Your task to perform on an android device: open app "Spotify" (install if not already installed) Image 0: 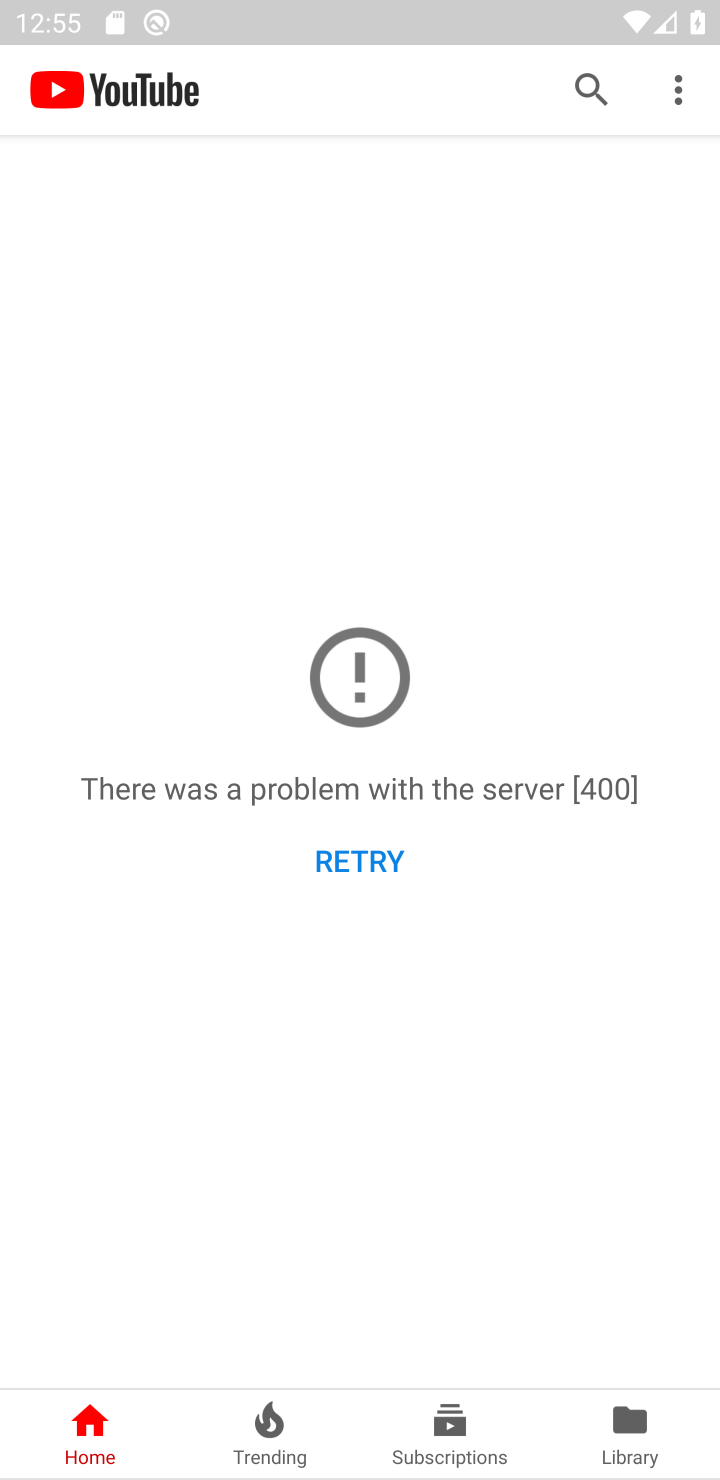
Step 0: press home button
Your task to perform on an android device: open app "Spotify" (install if not already installed) Image 1: 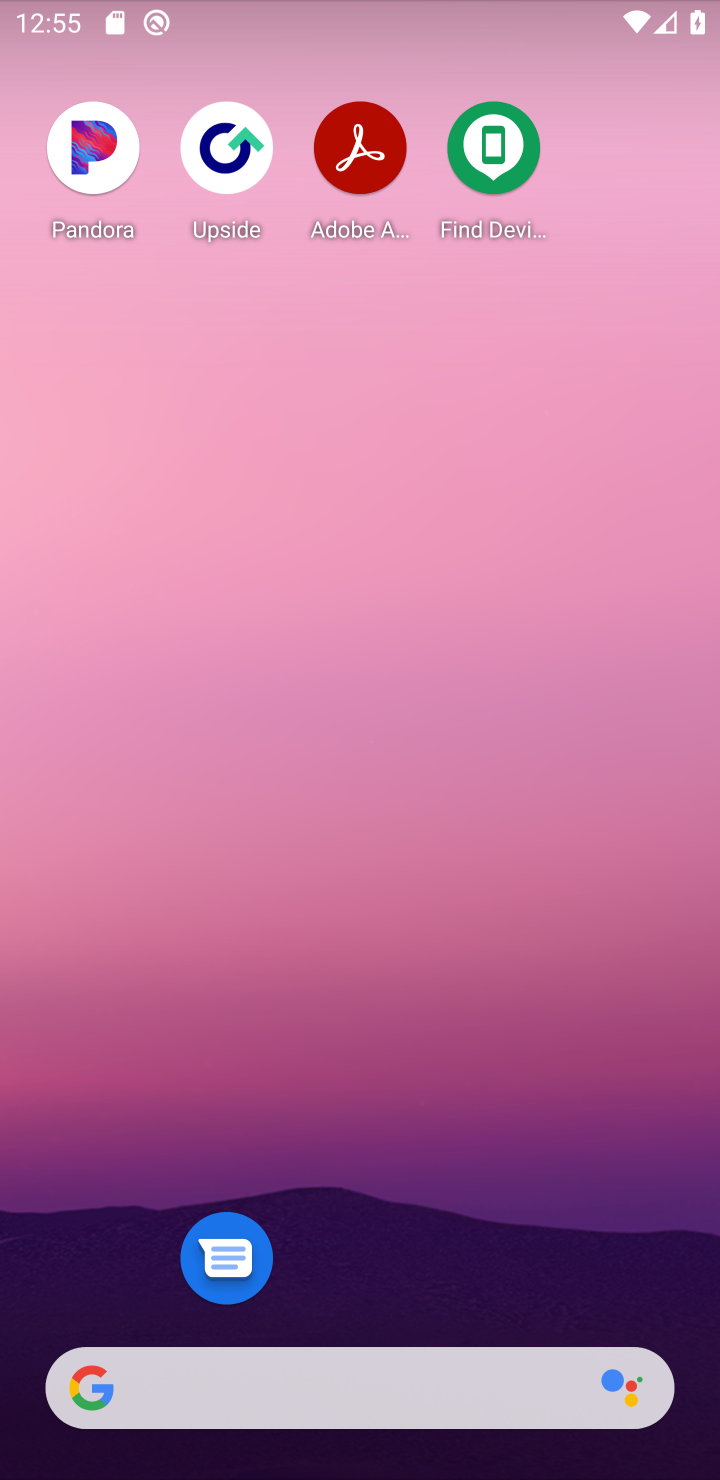
Step 1: drag from (326, 1252) to (387, 331)
Your task to perform on an android device: open app "Spotify" (install if not already installed) Image 2: 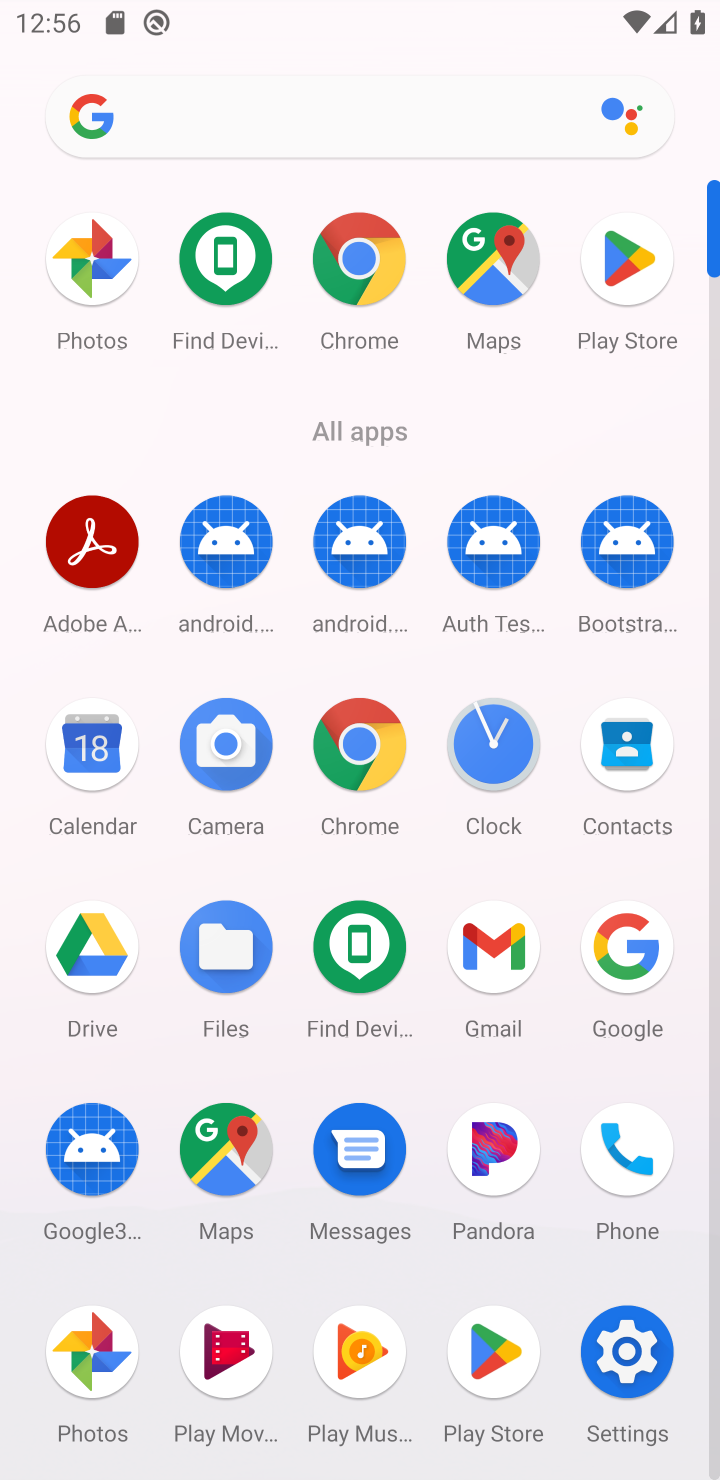
Step 2: click (637, 253)
Your task to perform on an android device: open app "Spotify" (install if not already installed) Image 3: 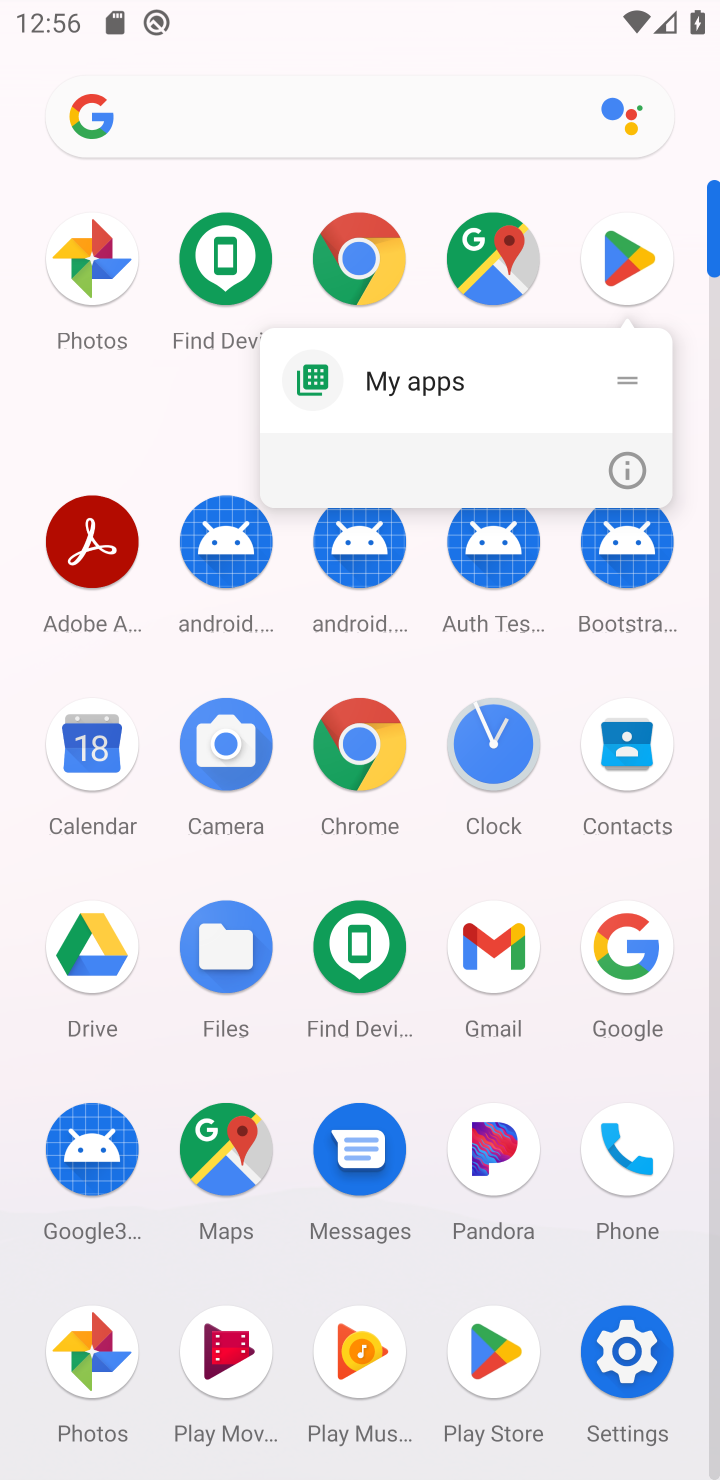
Step 3: click (637, 253)
Your task to perform on an android device: open app "Spotify" (install if not already installed) Image 4: 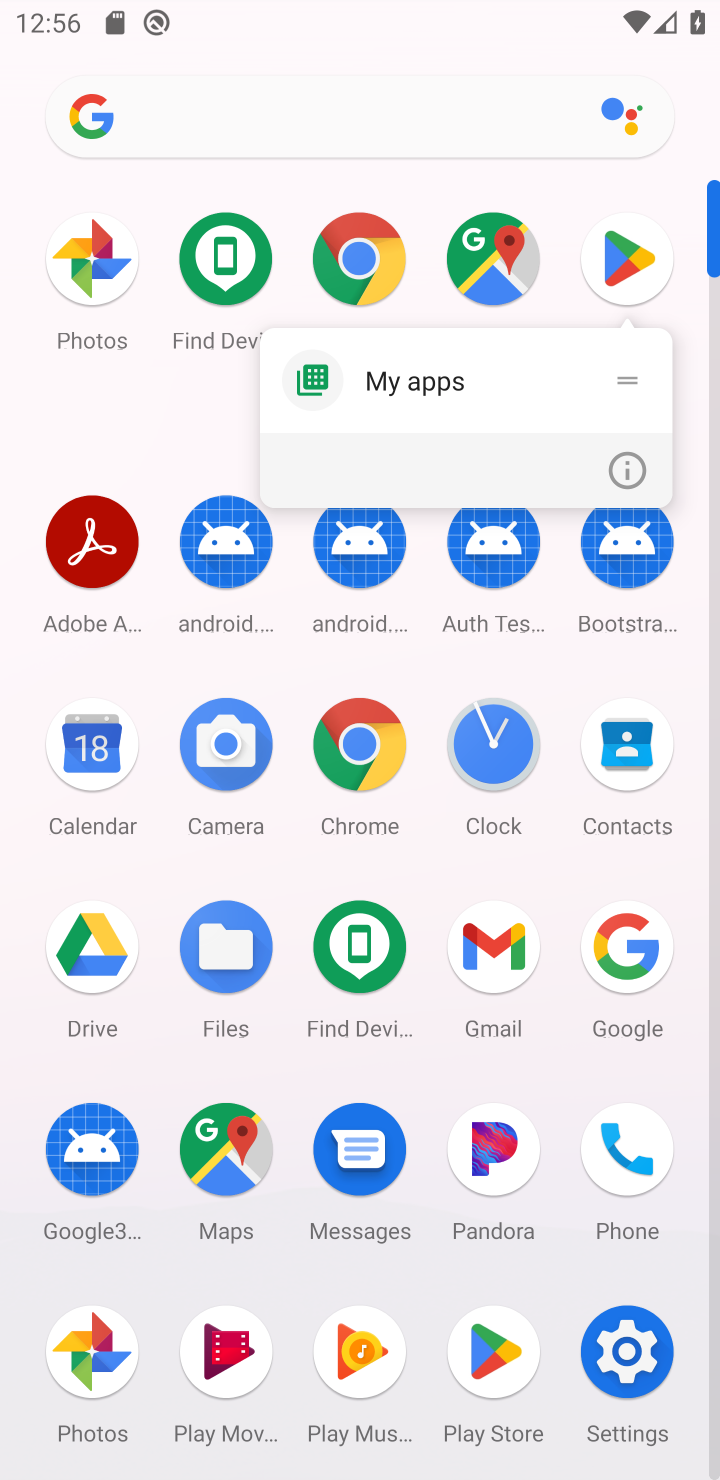
Step 4: click (629, 272)
Your task to perform on an android device: open app "Spotify" (install if not already installed) Image 5: 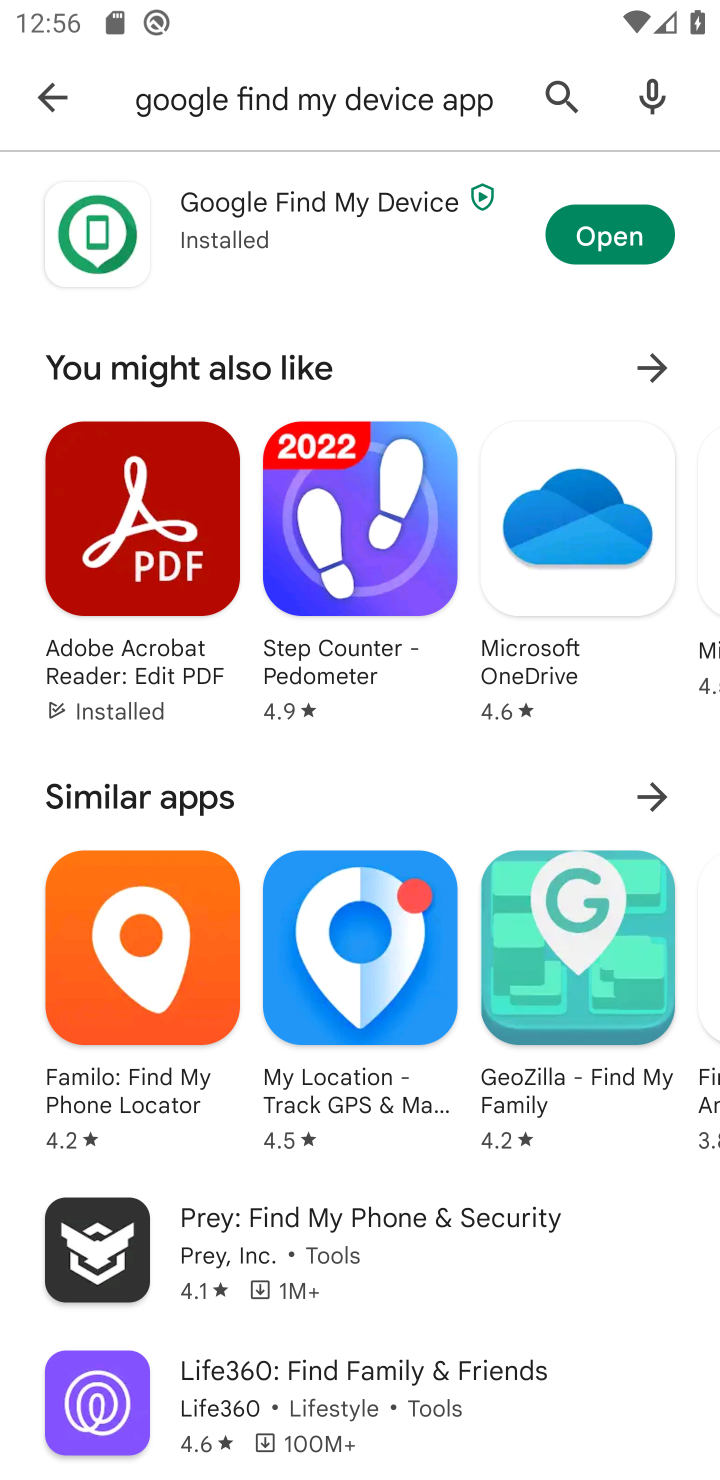
Step 5: click (59, 107)
Your task to perform on an android device: open app "Spotify" (install if not already installed) Image 6: 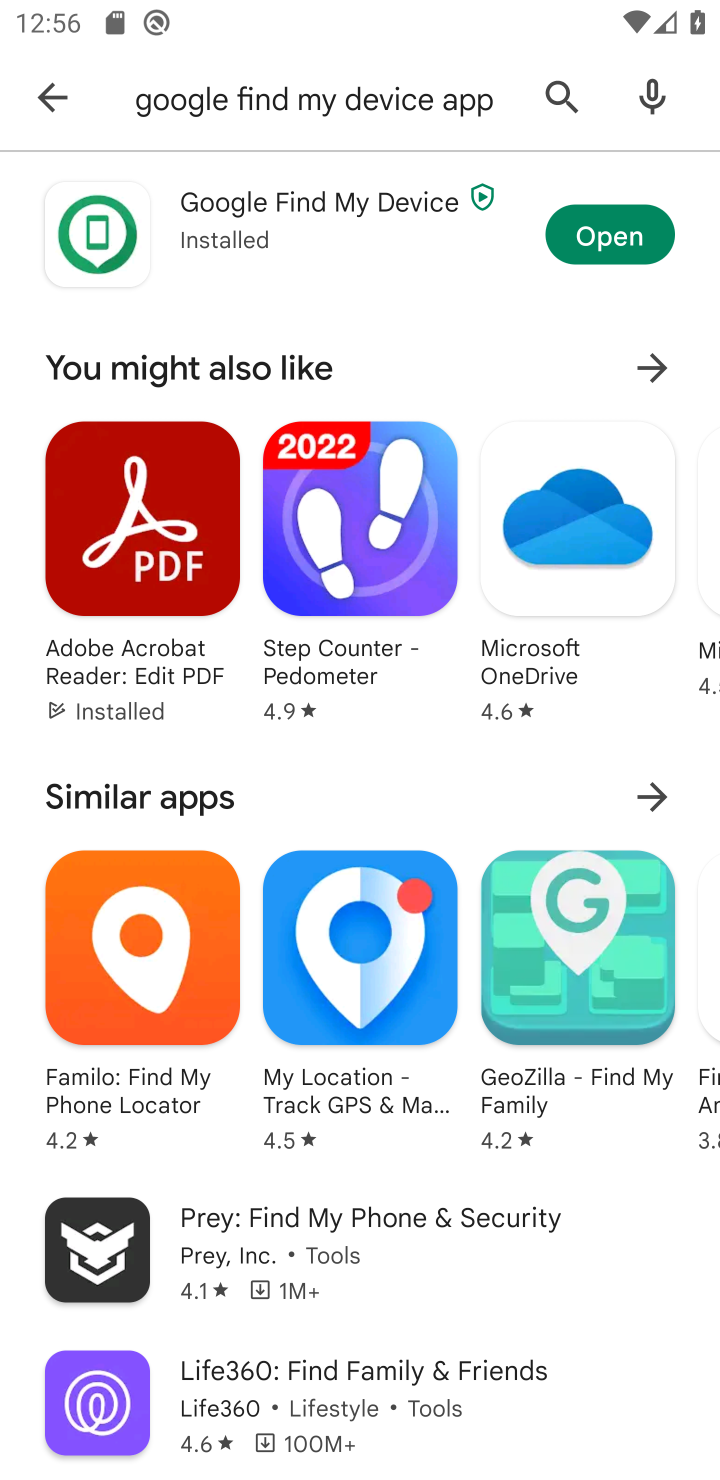
Step 6: click (59, 93)
Your task to perform on an android device: open app "Spotify" (install if not already installed) Image 7: 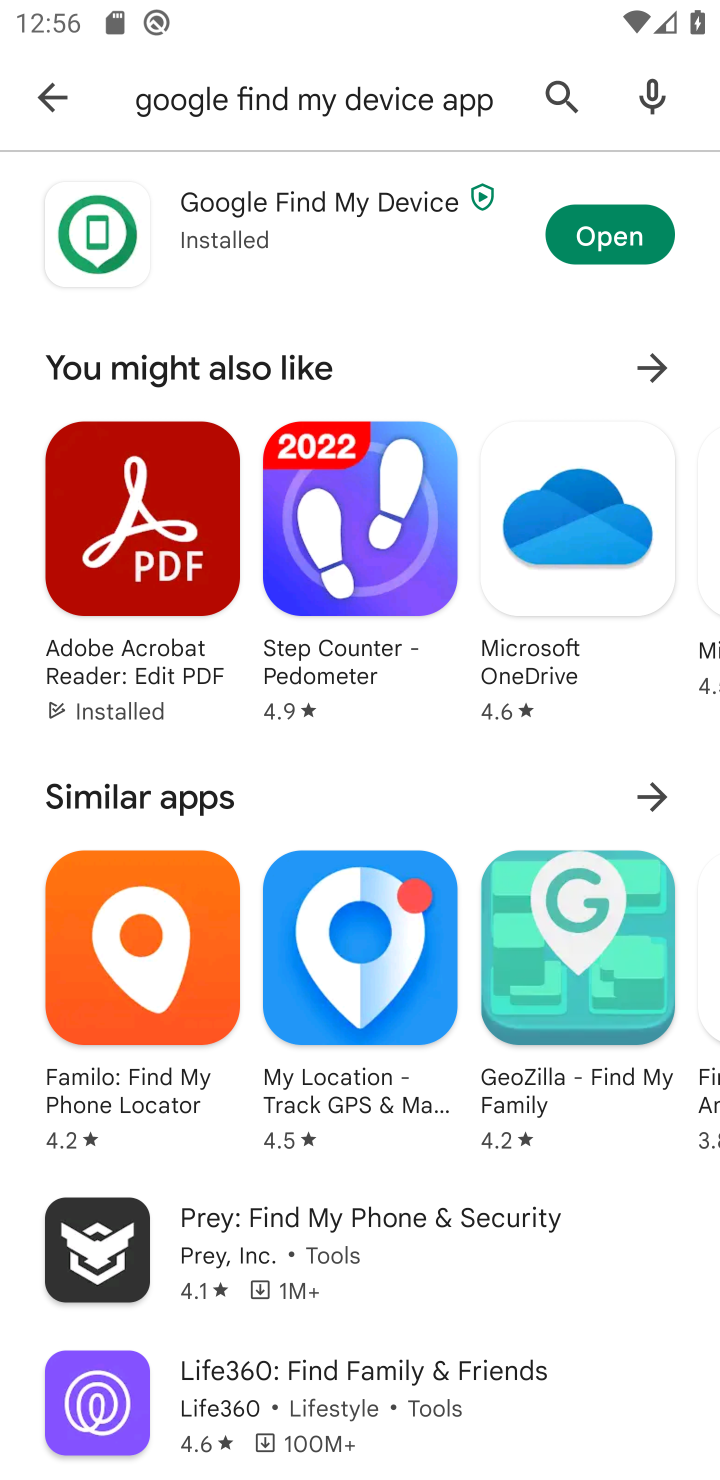
Step 7: click (59, 93)
Your task to perform on an android device: open app "Spotify" (install if not already installed) Image 8: 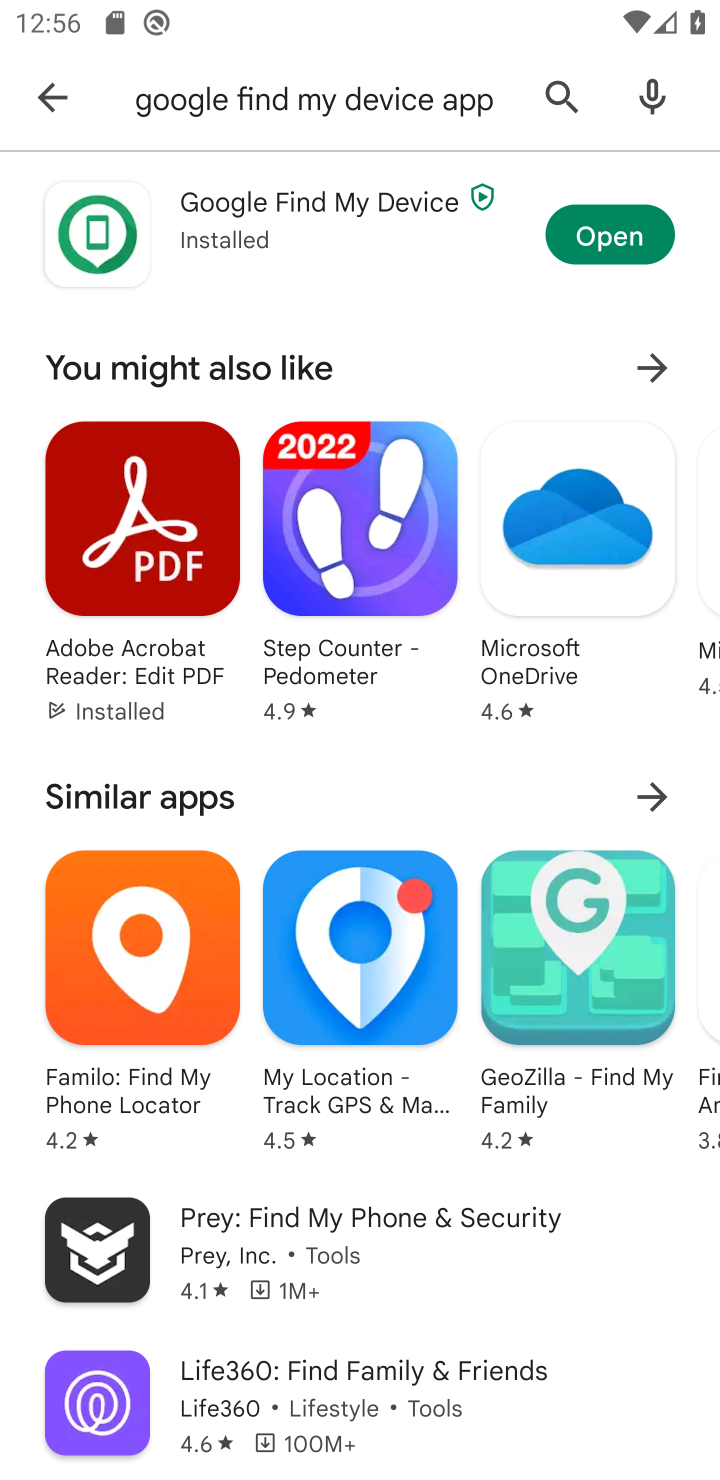
Step 8: click (59, 93)
Your task to perform on an android device: open app "Spotify" (install if not already installed) Image 9: 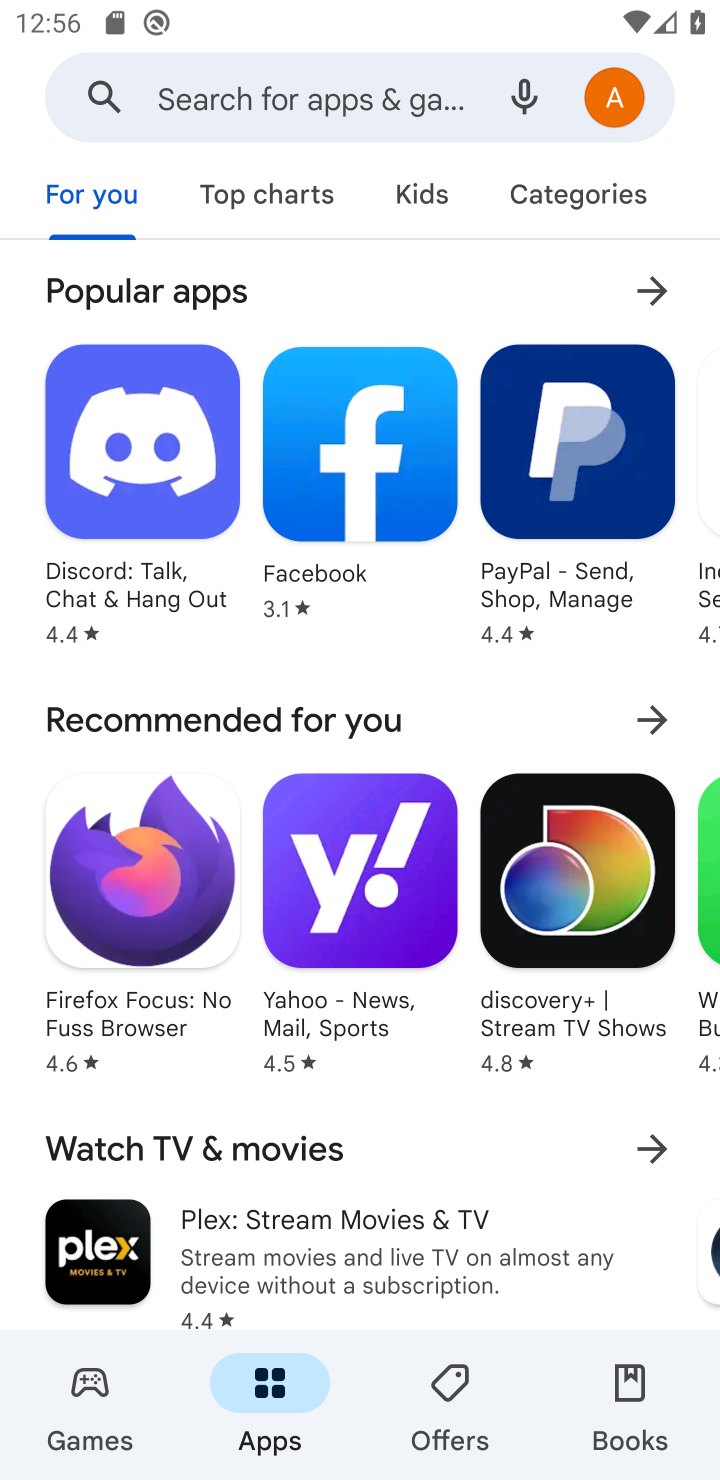
Step 9: click (251, 100)
Your task to perform on an android device: open app "Spotify" (install if not already installed) Image 10: 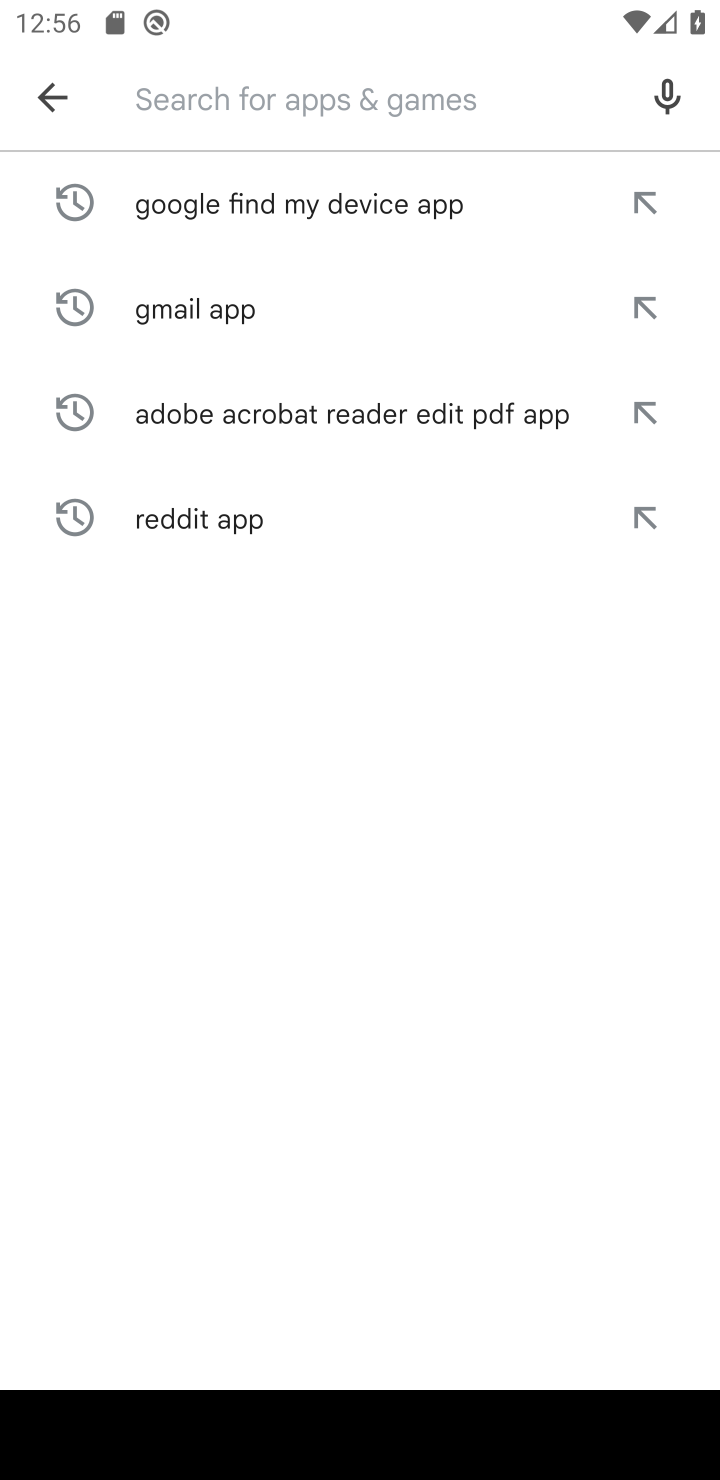
Step 10: type "spotify"
Your task to perform on an android device: open app "Spotify" (install if not already installed) Image 11: 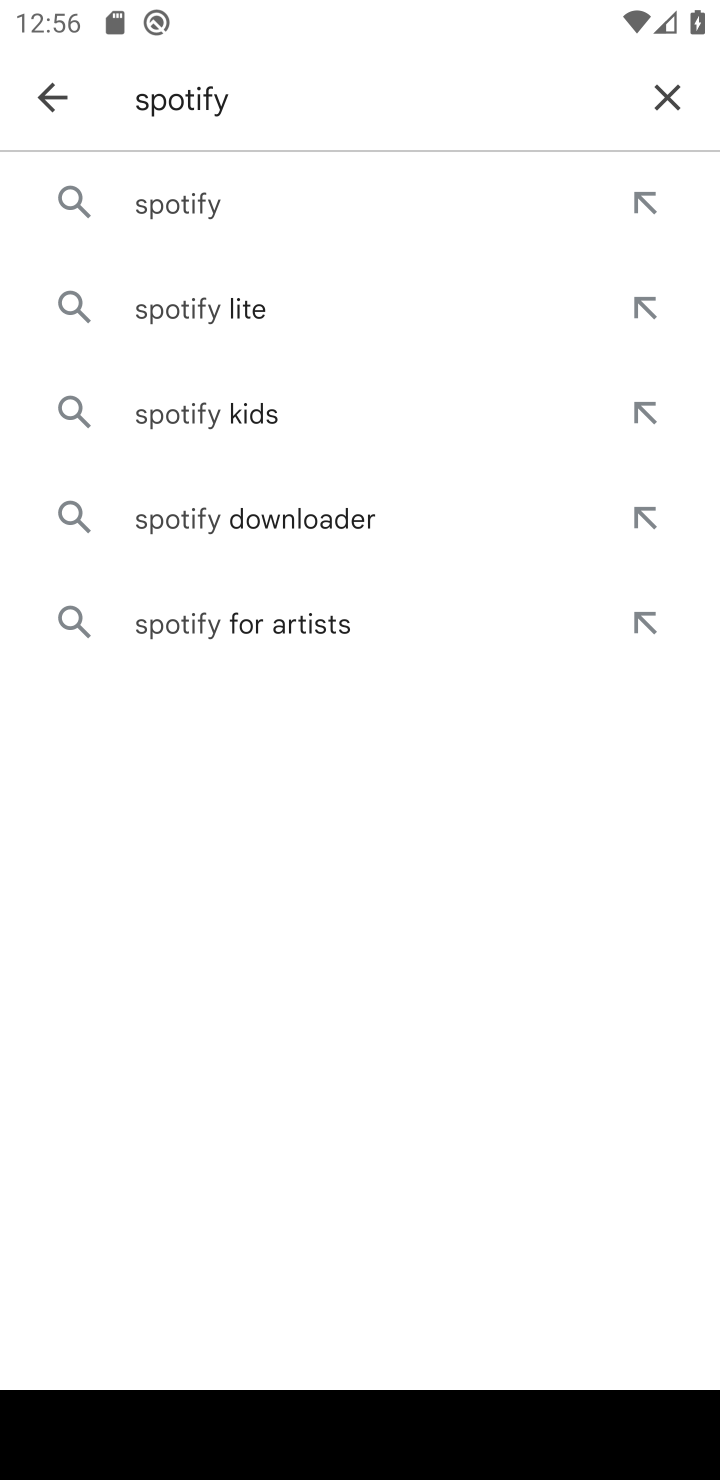
Step 11: click (202, 218)
Your task to perform on an android device: open app "Spotify" (install if not already installed) Image 12: 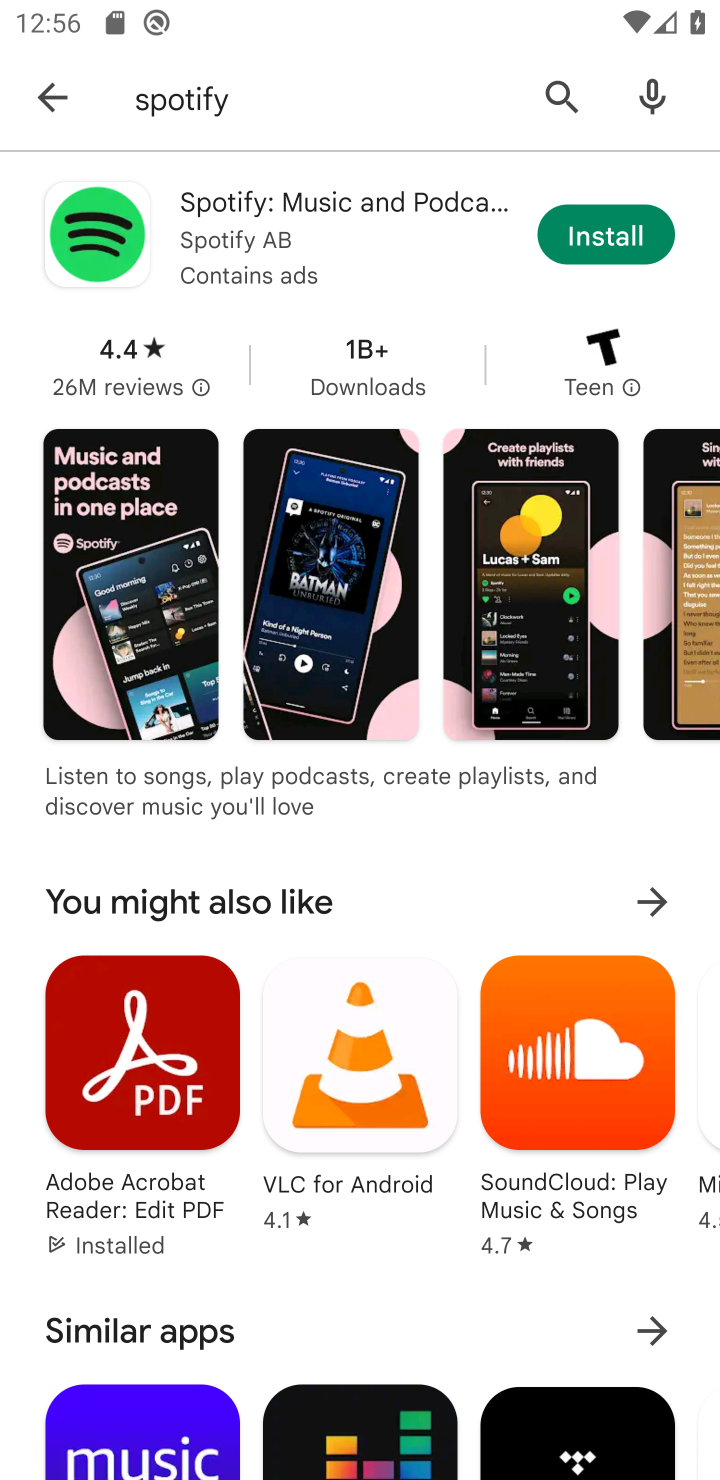
Step 12: click (639, 228)
Your task to perform on an android device: open app "Spotify" (install if not already installed) Image 13: 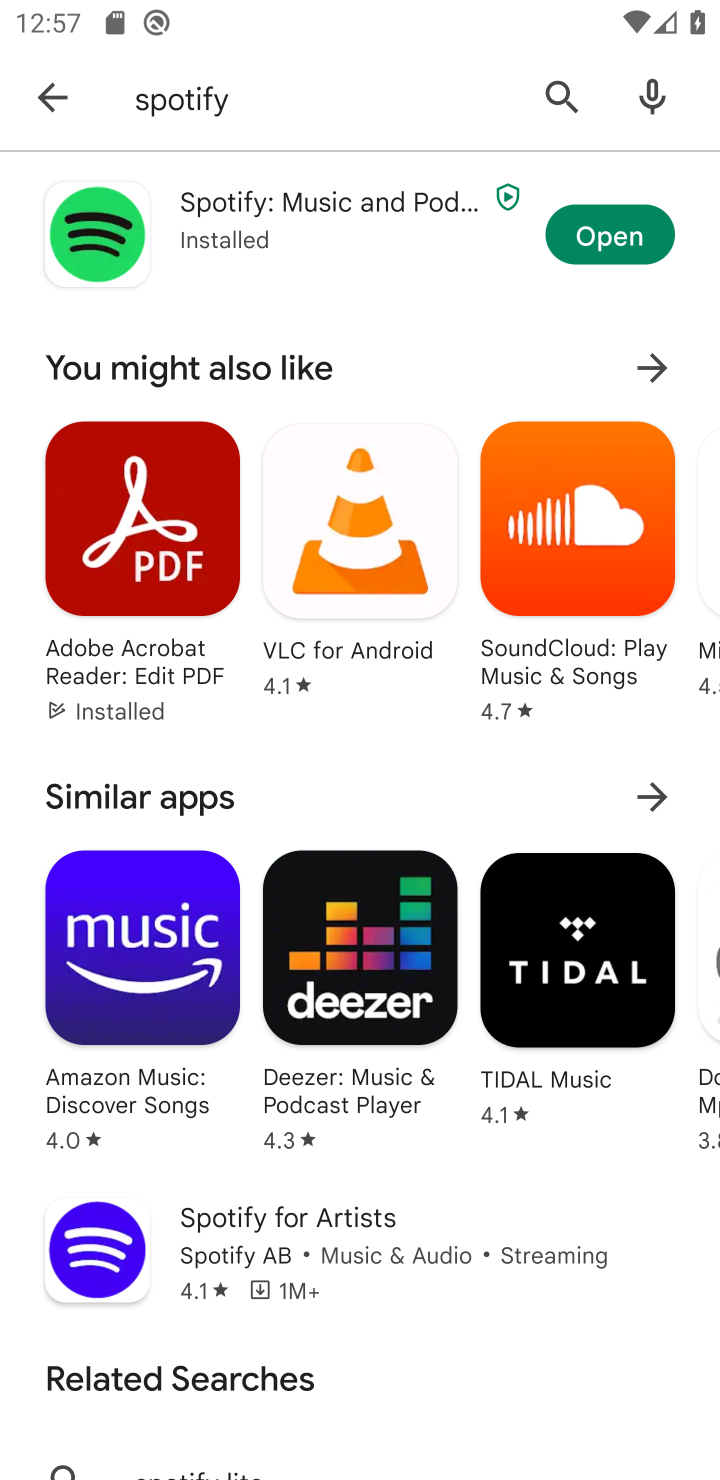
Step 13: click (576, 206)
Your task to perform on an android device: open app "Spotify" (install if not already installed) Image 14: 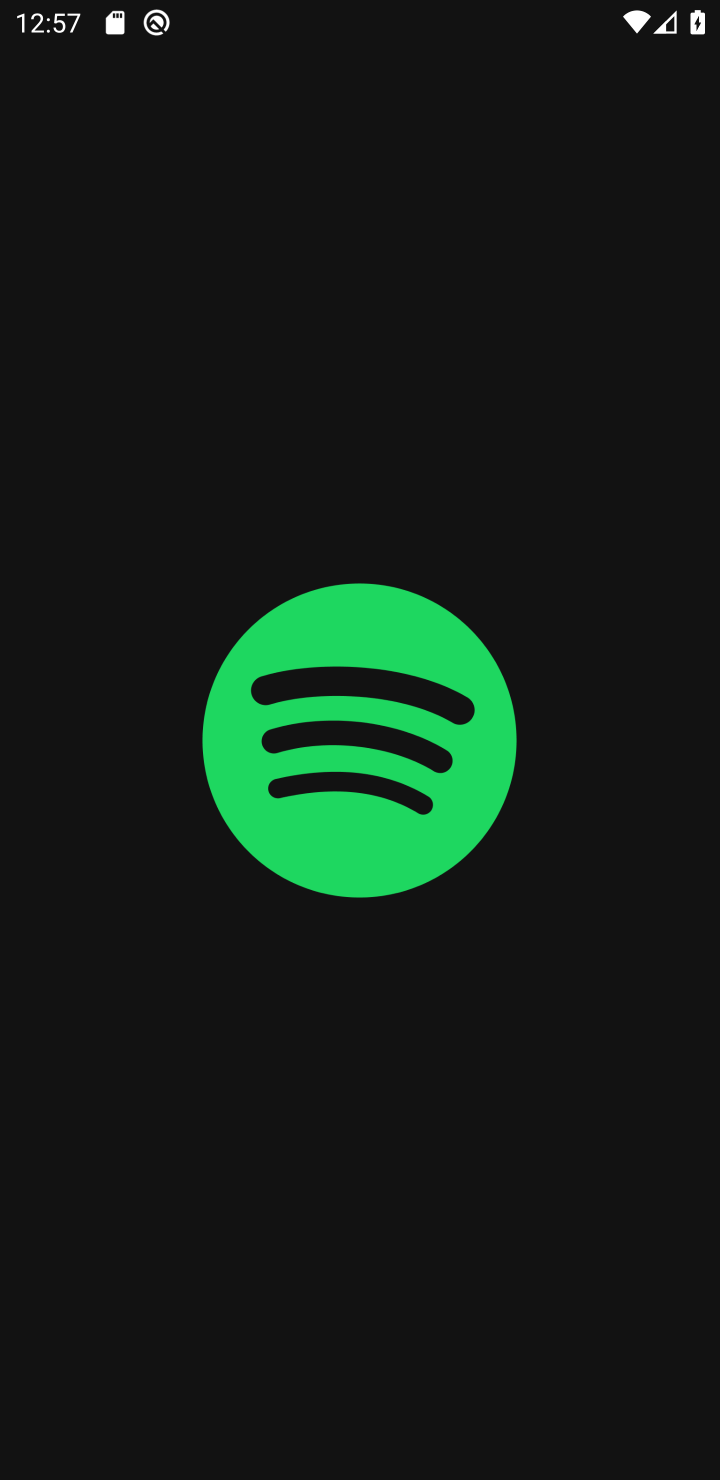
Step 14: task complete